Your task to perform on an android device: turn on javascript in the chrome app Image 0: 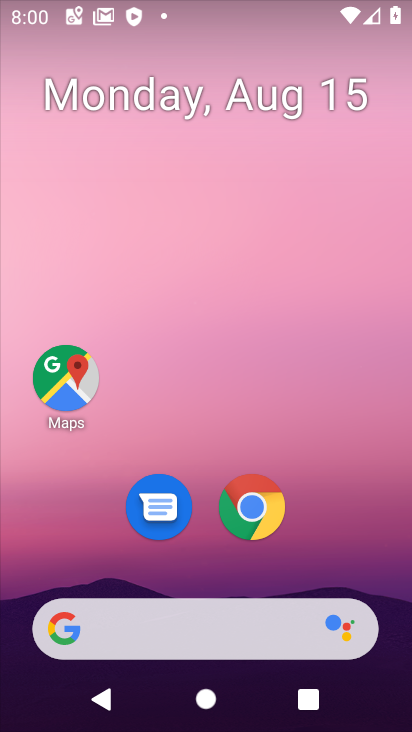
Step 0: click (227, 501)
Your task to perform on an android device: turn on javascript in the chrome app Image 1: 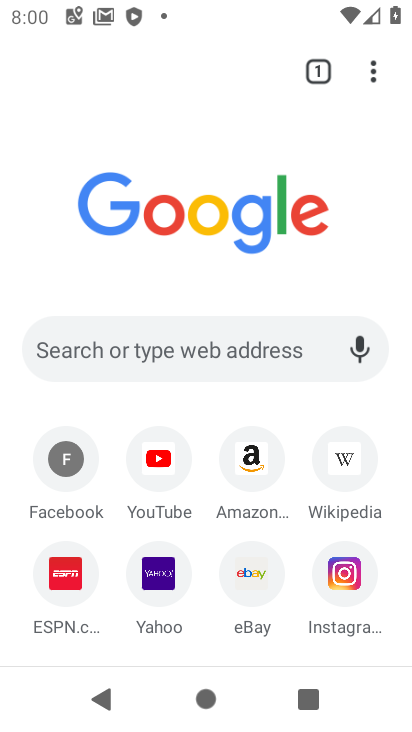
Step 1: click (378, 59)
Your task to perform on an android device: turn on javascript in the chrome app Image 2: 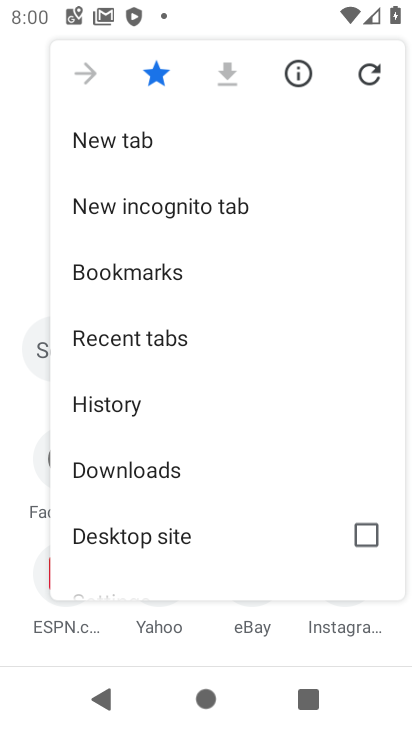
Step 2: drag from (213, 532) to (219, 142)
Your task to perform on an android device: turn on javascript in the chrome app Image 3: 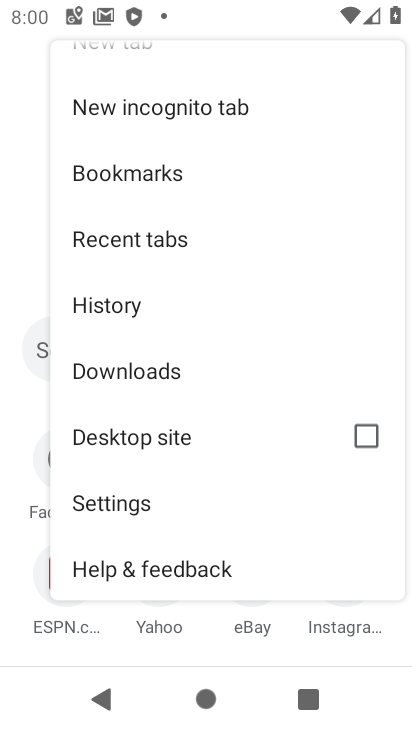
Step 3: click (158, 516)
Your task to perform on an android device: turn on javascript in the chrome app Image 4: 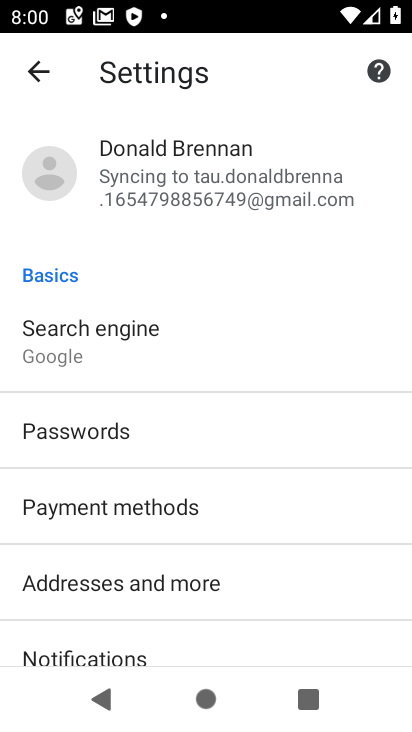
Step 4: drag from (89, 653) to (47, 209)
Your task to perform on an android device: turn on javascript in the chrome app Image 5: 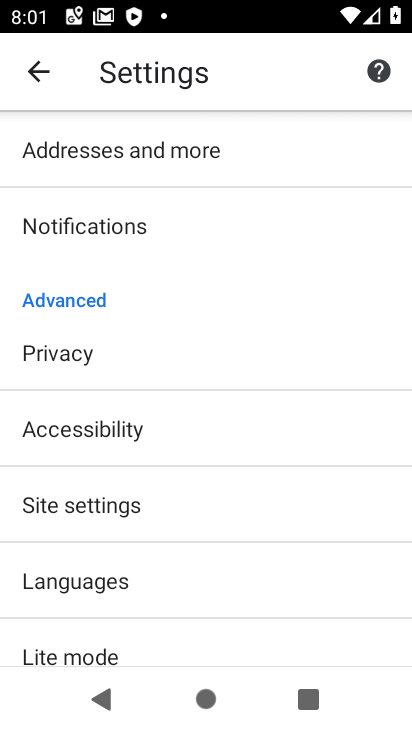
Step 5: click (65, 478)
Your task to perform on an android device: turn on javascript in the chrome app Image 6: 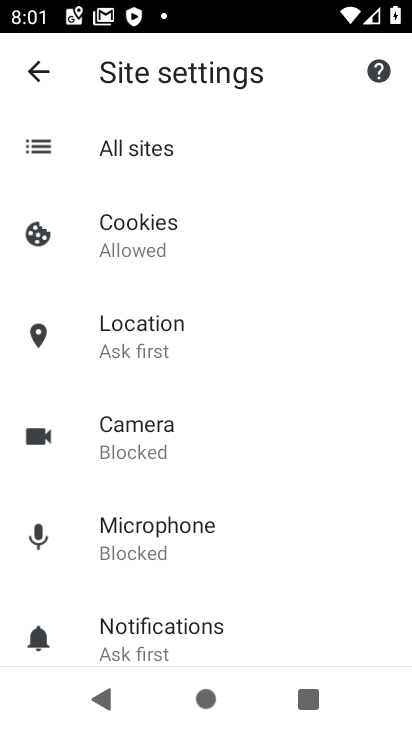
Step 6: drag from (65, 478) to (102, 150)
Your task to perform on an android device: turn on javascript in the chrome app Image 7: 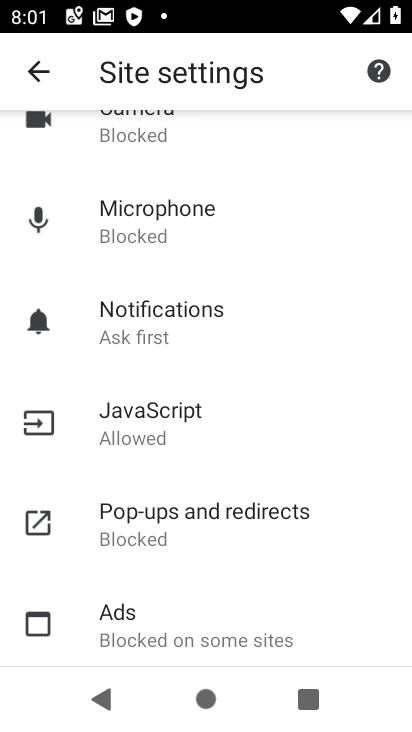
Step 7: click (157, 433)
Your task to perform on an android device: turn on javascript in the chrome app Image 8: 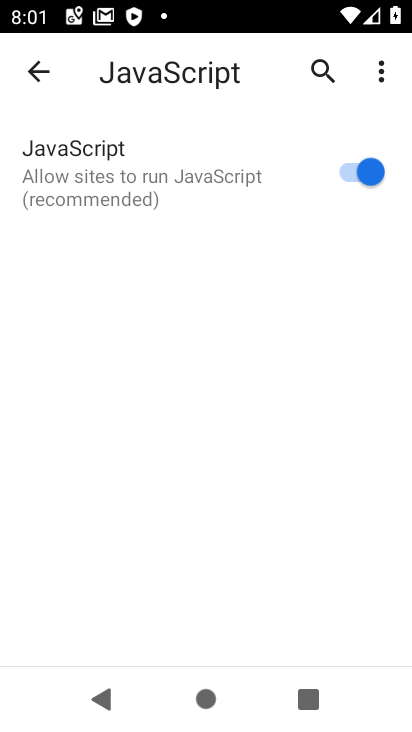
Step 8: task complete